Your task to perform on an android device: remove spam from my inbox in the gmail app Image 0: 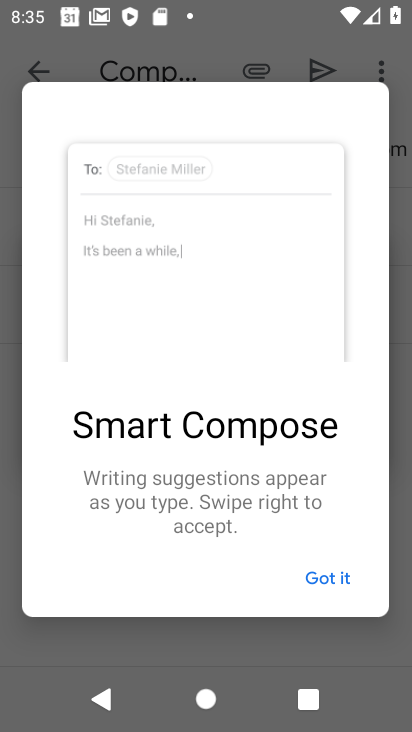
Step 0: press home button
Your task to perform on an android device: remove spam from my inbox in the gmail app Image 1: 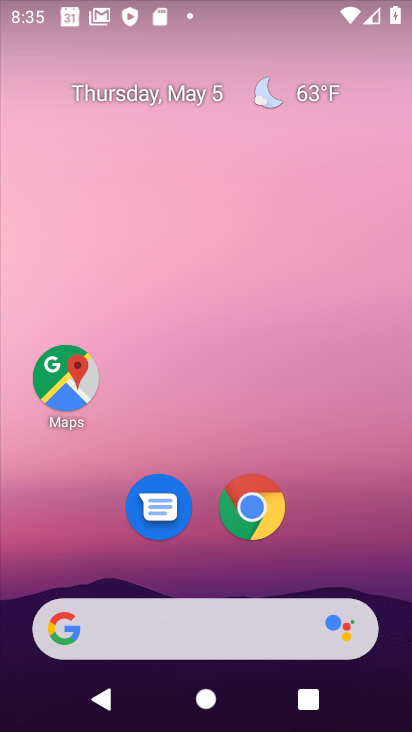
Step 1: drag from (335, 536) to (287, 18)
Your task to perform on an android device: remove spam from my inbox in the gmail app Image 2: 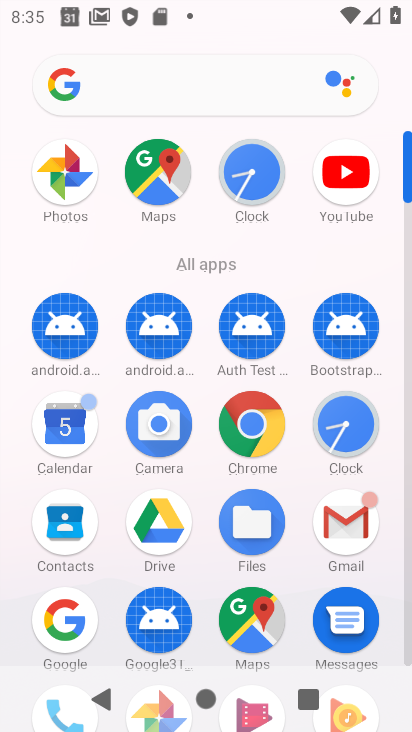
Step 2: click (362, 520)
Your task to perform on an android device: remove spam from my inbox in the gmail app Image 3: 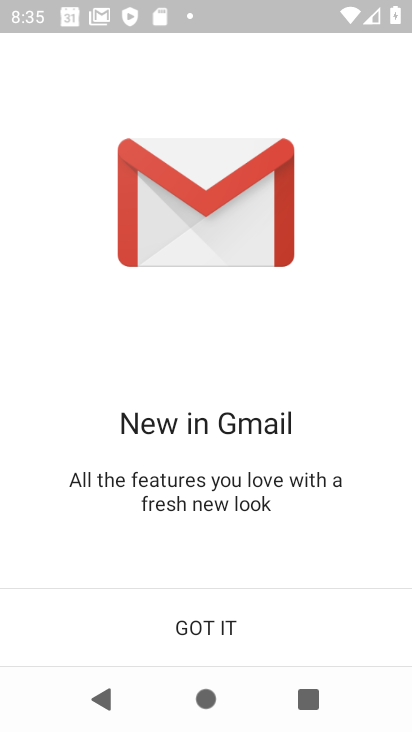
Step 3: click (165, 640)
Your task to perform on an android device: remove spam from my inbox in the gmail app Image 4: 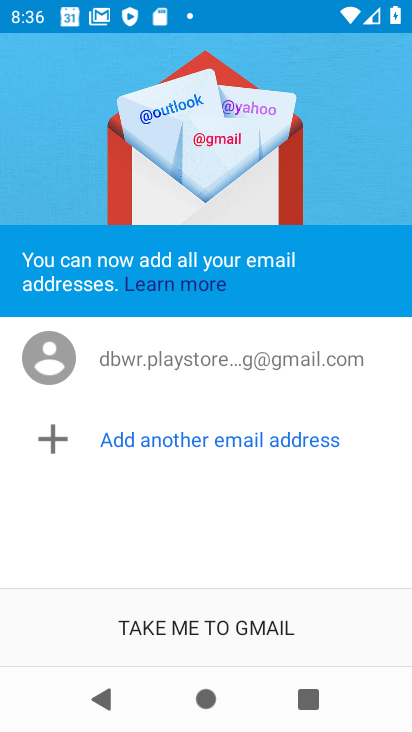
Step 4: click (274, 626)
Your task to perform on an android device: remove spam from my inbox in the gmail app Image 5: 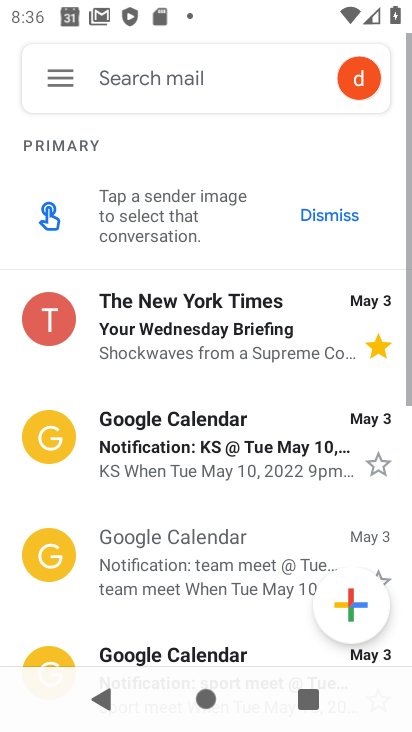
Step 5: click (54, 85)
Your task to perform on an android device: remove spam from my inbox in the gmail app Image 6: 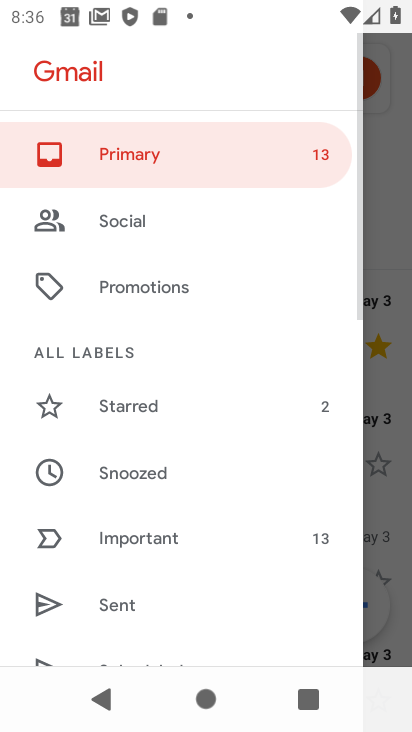
Step 6: drag from (133, 621) to (144, 229)
Your task to perform on an android device: remove spam from my inbox in the gmail app Image 7: 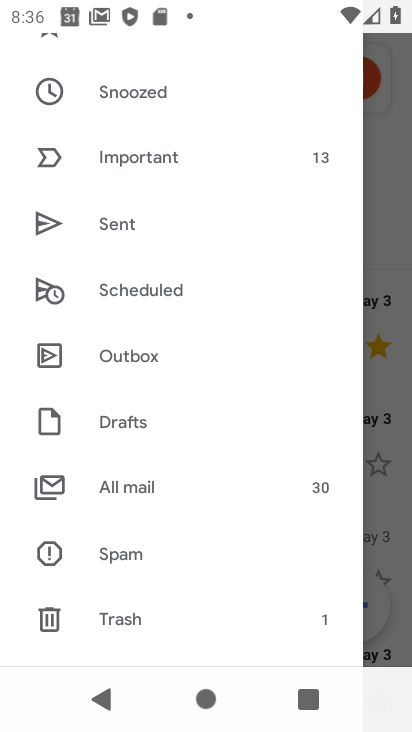
Step 7: click (162, 550)
Your task to perform on an android device: remove spam from my inbox in the gmail app Image 8: 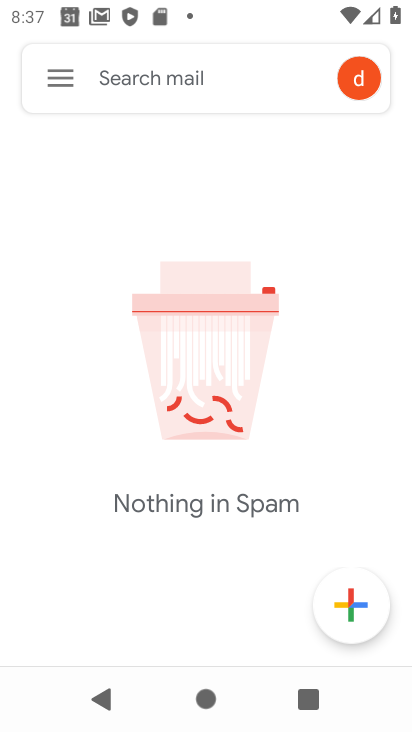
Step 8: task complete